Your task to perform on an android device: Add "razer nari" to the cart on amazon.com Image 0: 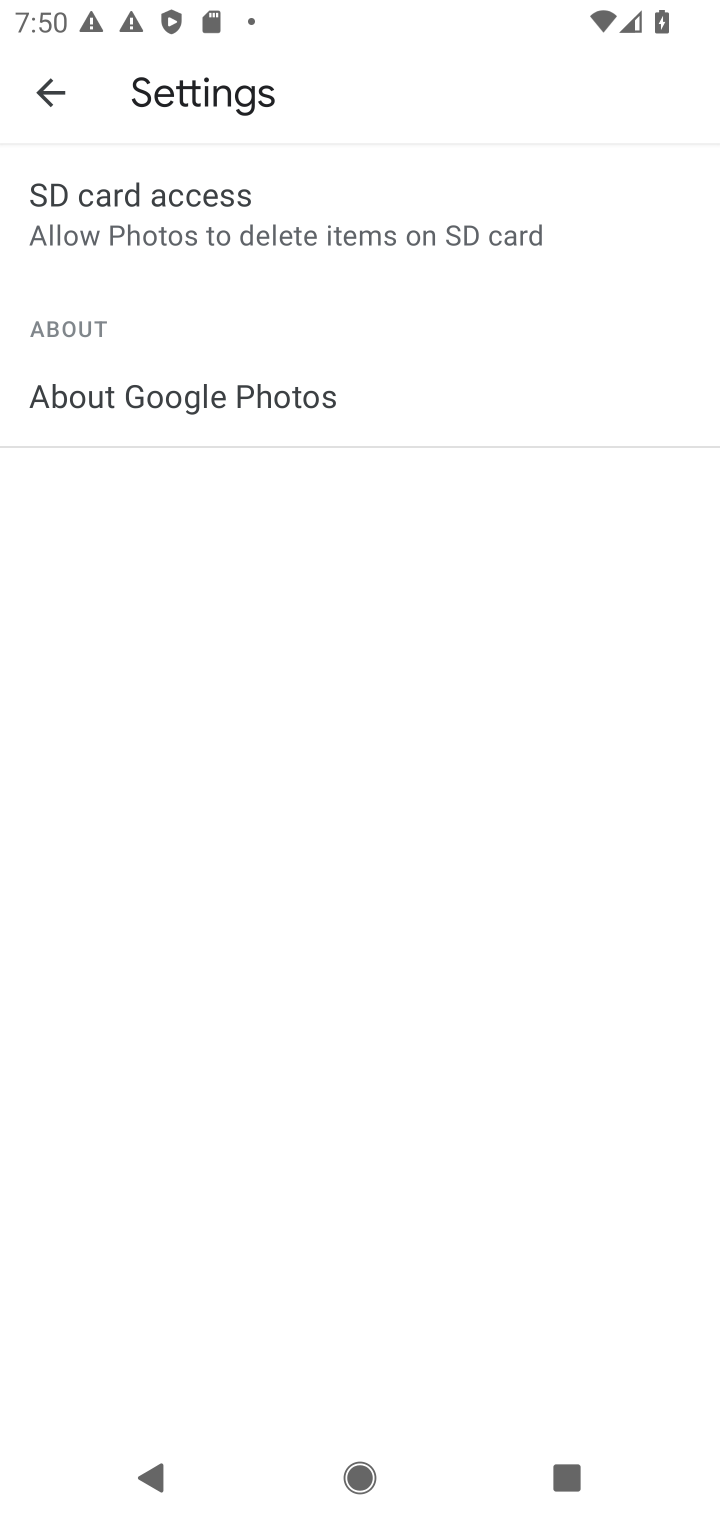
Step 0: press home button
Your task to perform on an android device: Add "razer nari" to the cart on amazon.com Image 1: 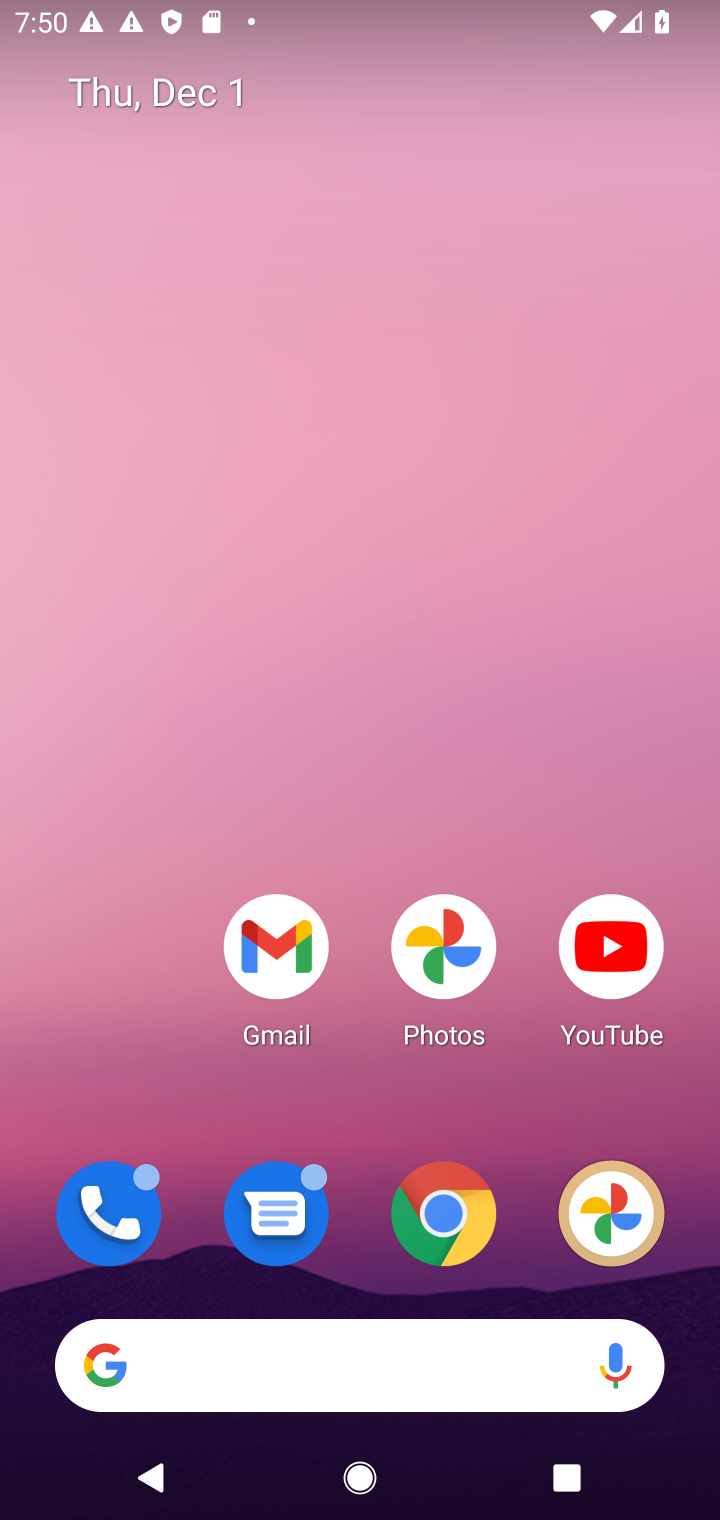
Step 1: click (294, 569)
Your task to perform on an android device: Add "razer nari" to the cart on amazon.com Image 2: 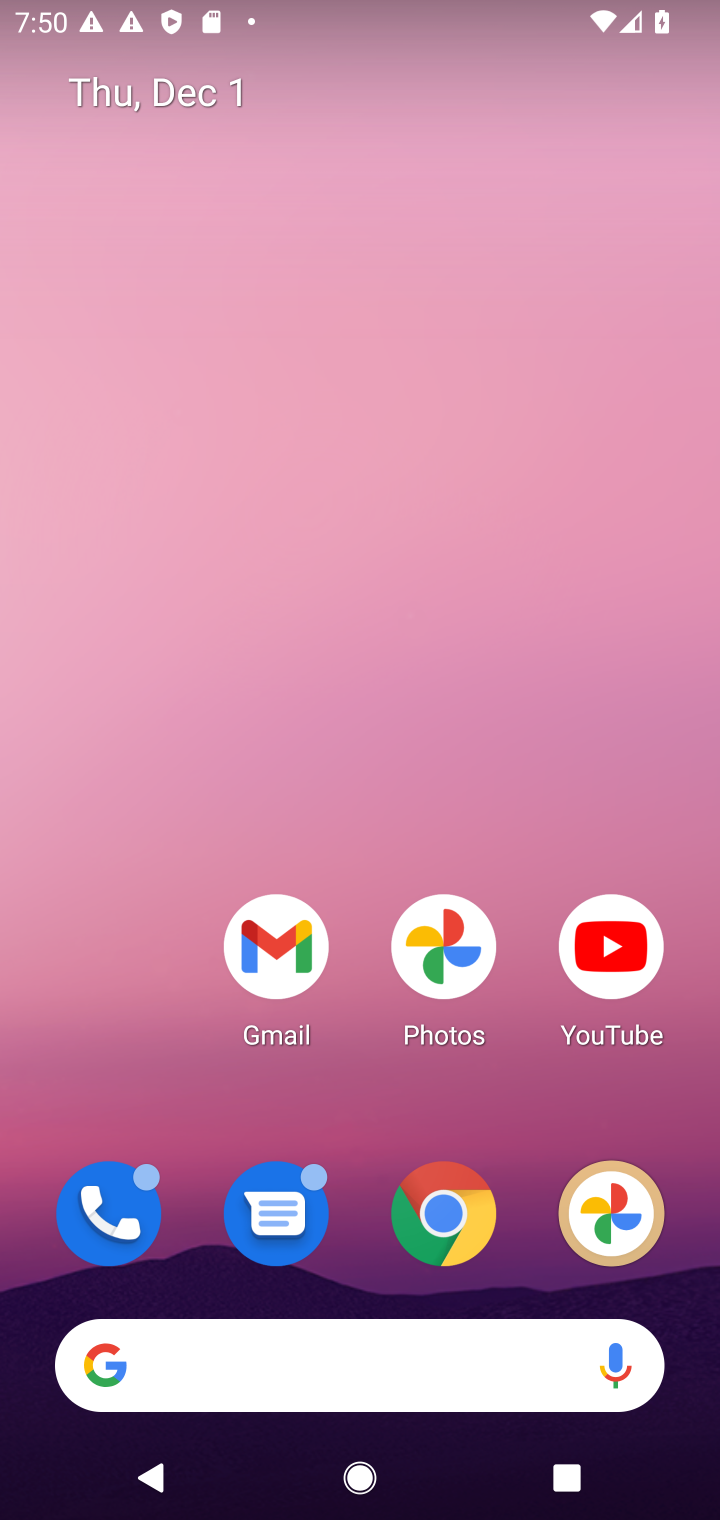
Step 2: drag from (344, 1087) to (432, 468)
Your task to perform on an android device: Add "razer nari" to the cart on amazon.com Image 3: 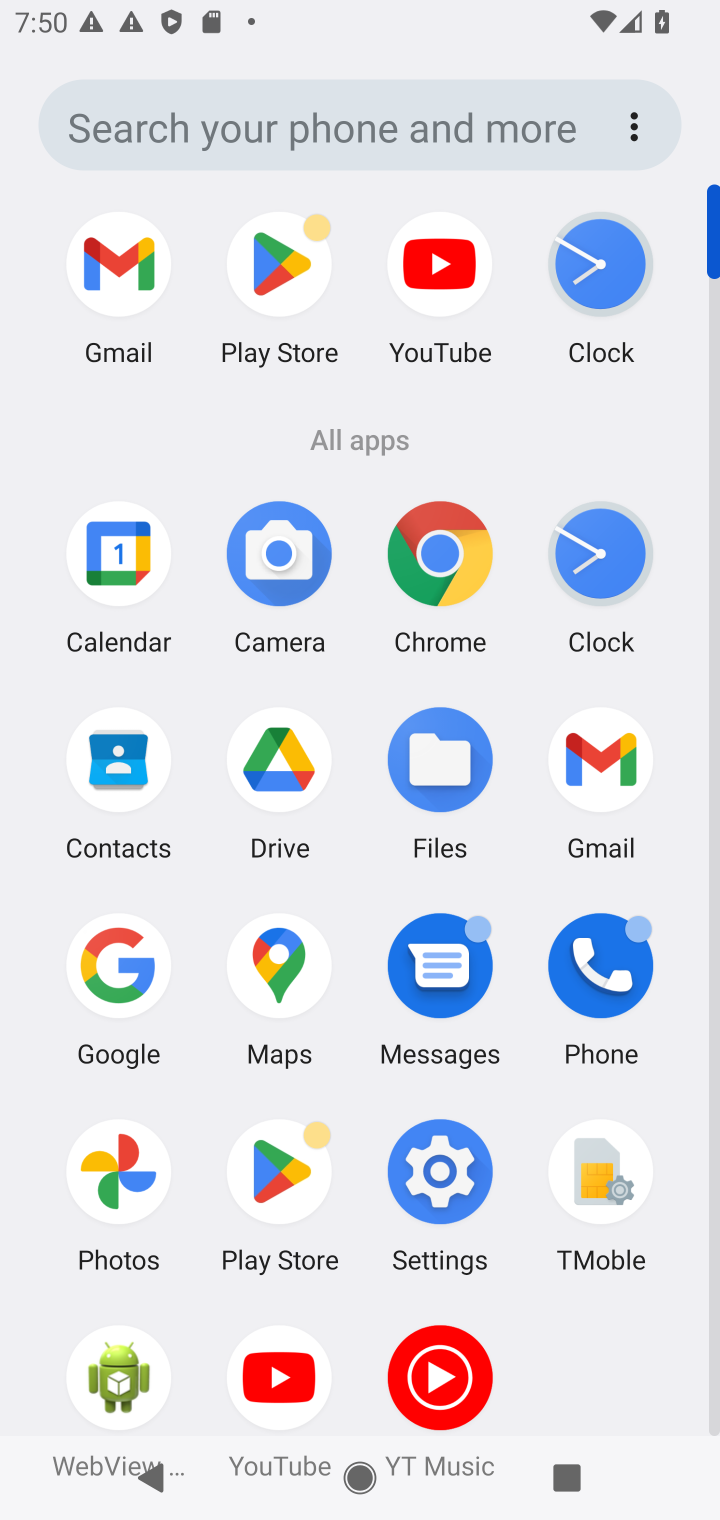
Step 3: click (369, 427)
Your task to perform on an android device: Add "razer nari" to the cart on amazon.com Image 4: 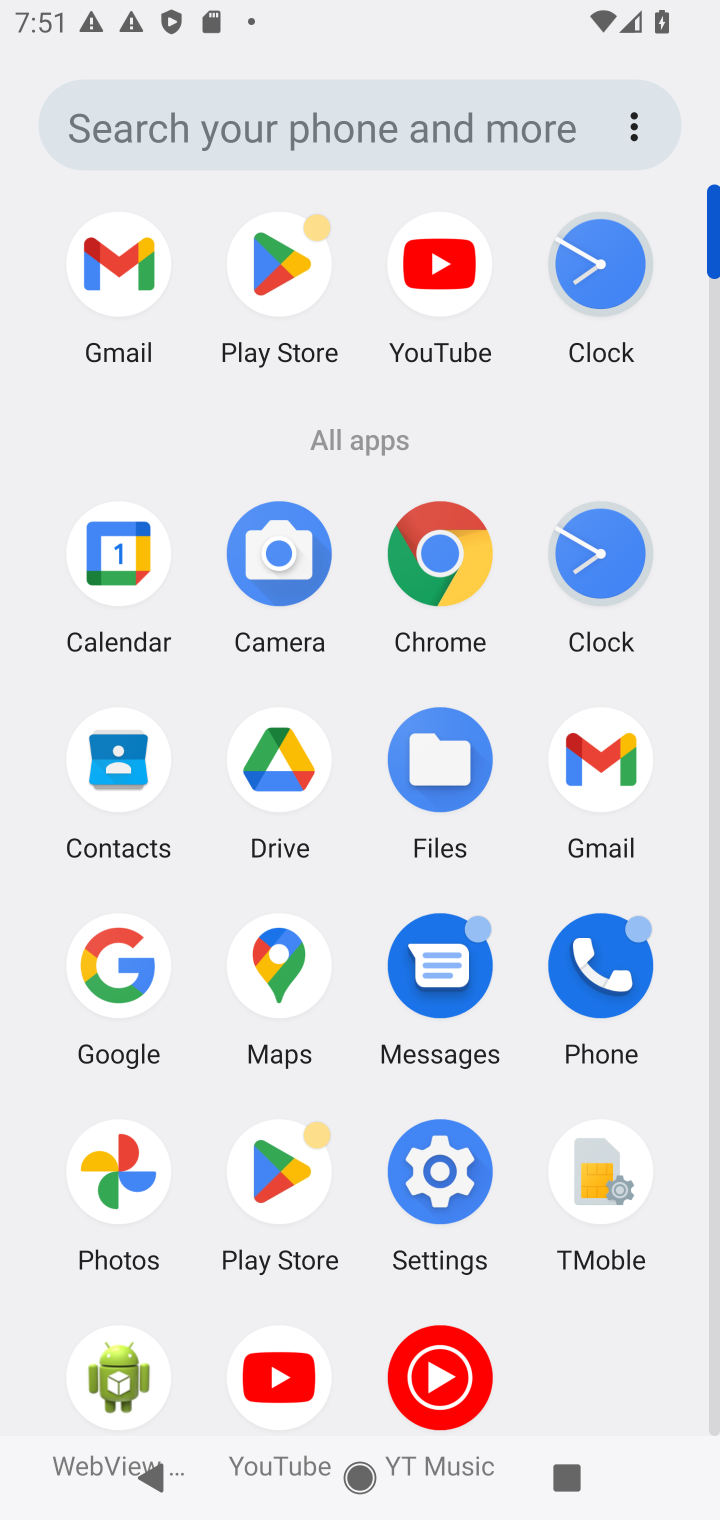
Step 4: click (111, 970)
Your task to perform on an android device: Add "razer nari" to the cart on amazon.com Image 5: 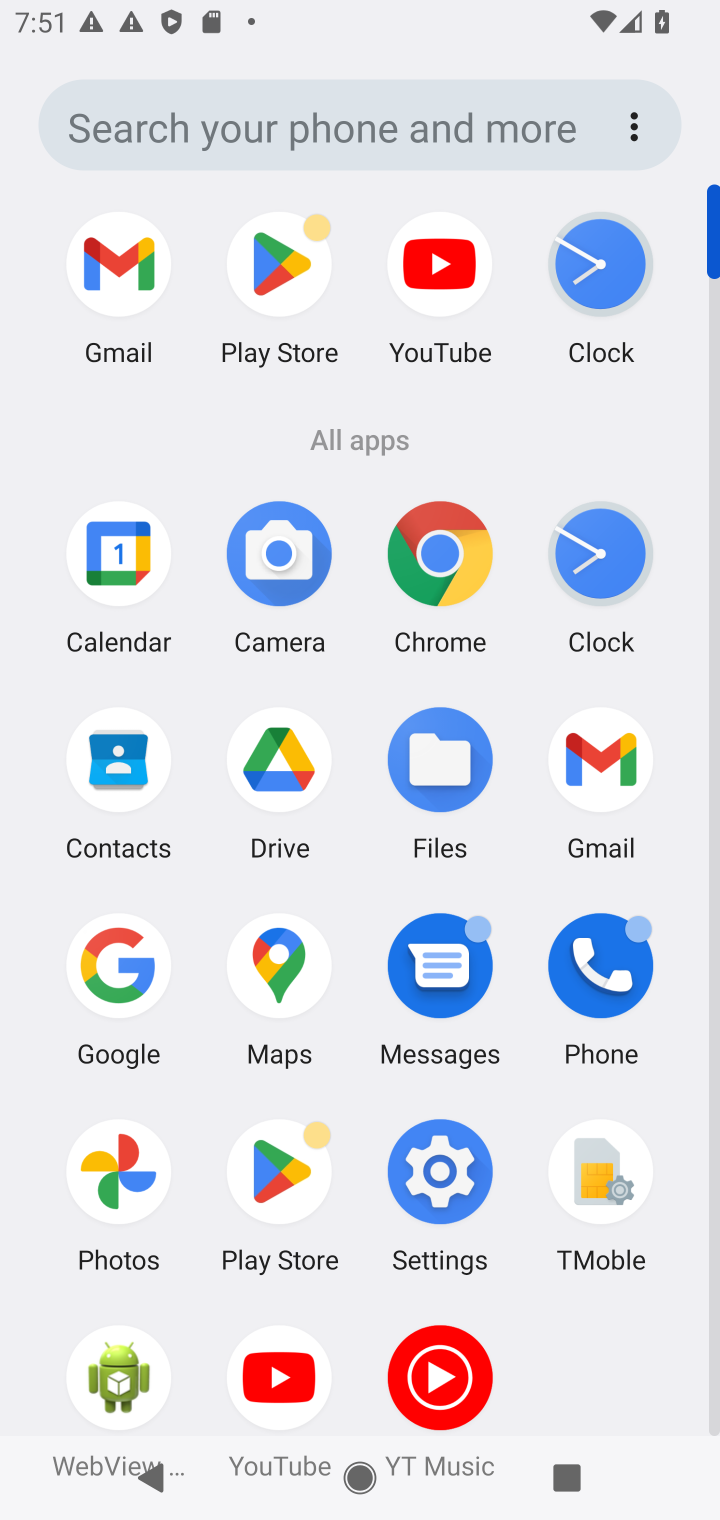
Step 5: click (121, 968)
Your task to perform on an android device: Add "razer nari" to the cart on amazon.com Image 6: 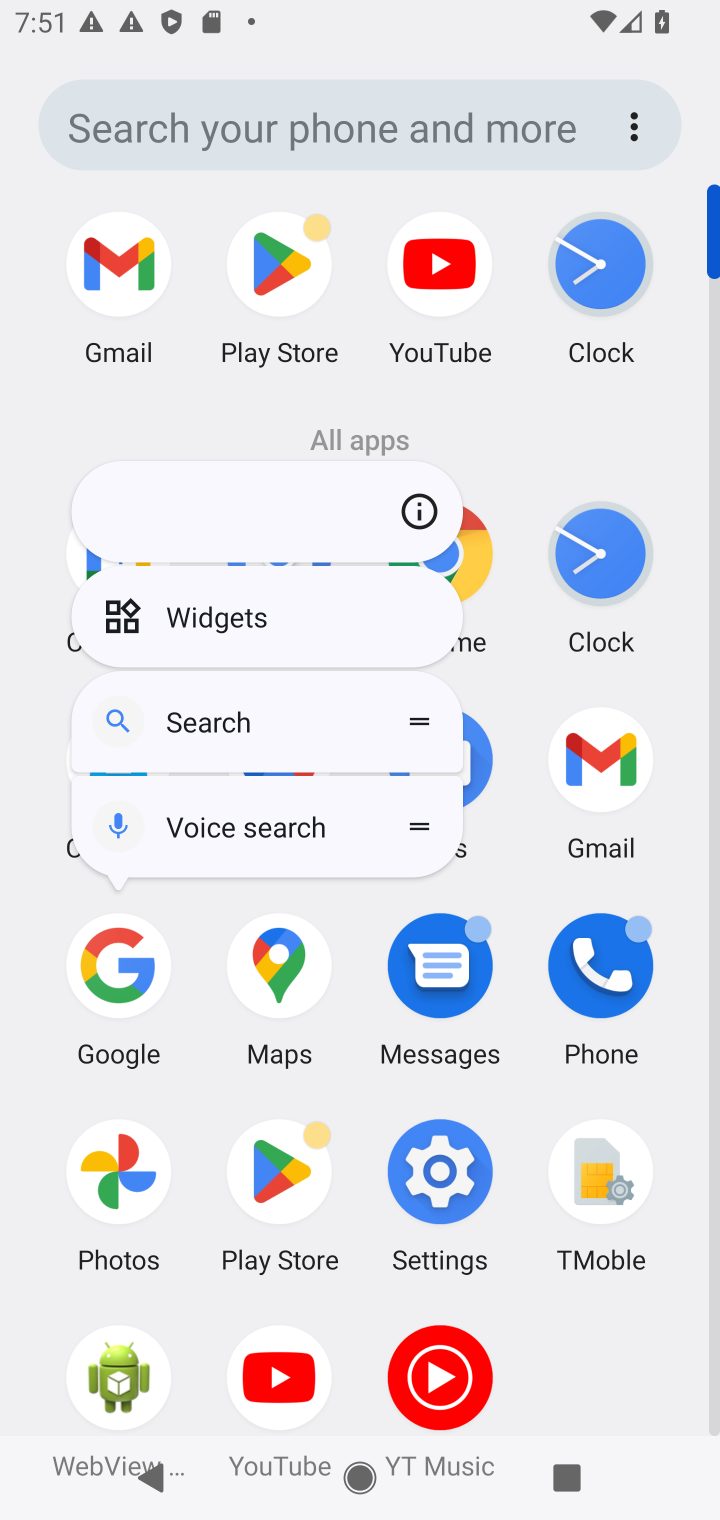
Step 6: click (121, 968)
Your task to perform on an android device: Add "razer nari" to the cart on amazon.com Image 7: 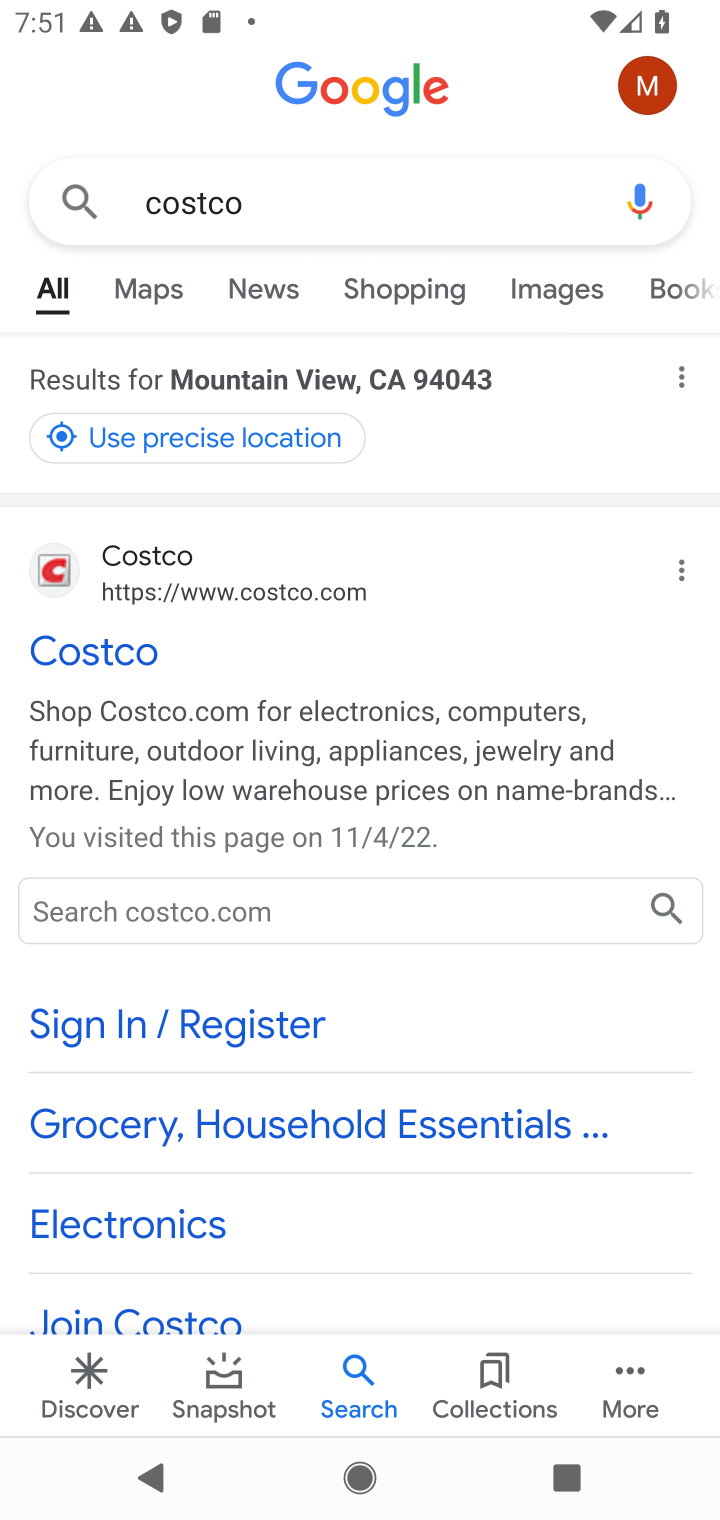
Step 7: click (217, 206)
Your task to perform on an android device: Add "razer nari" to the cart on amazon.com Image 8: 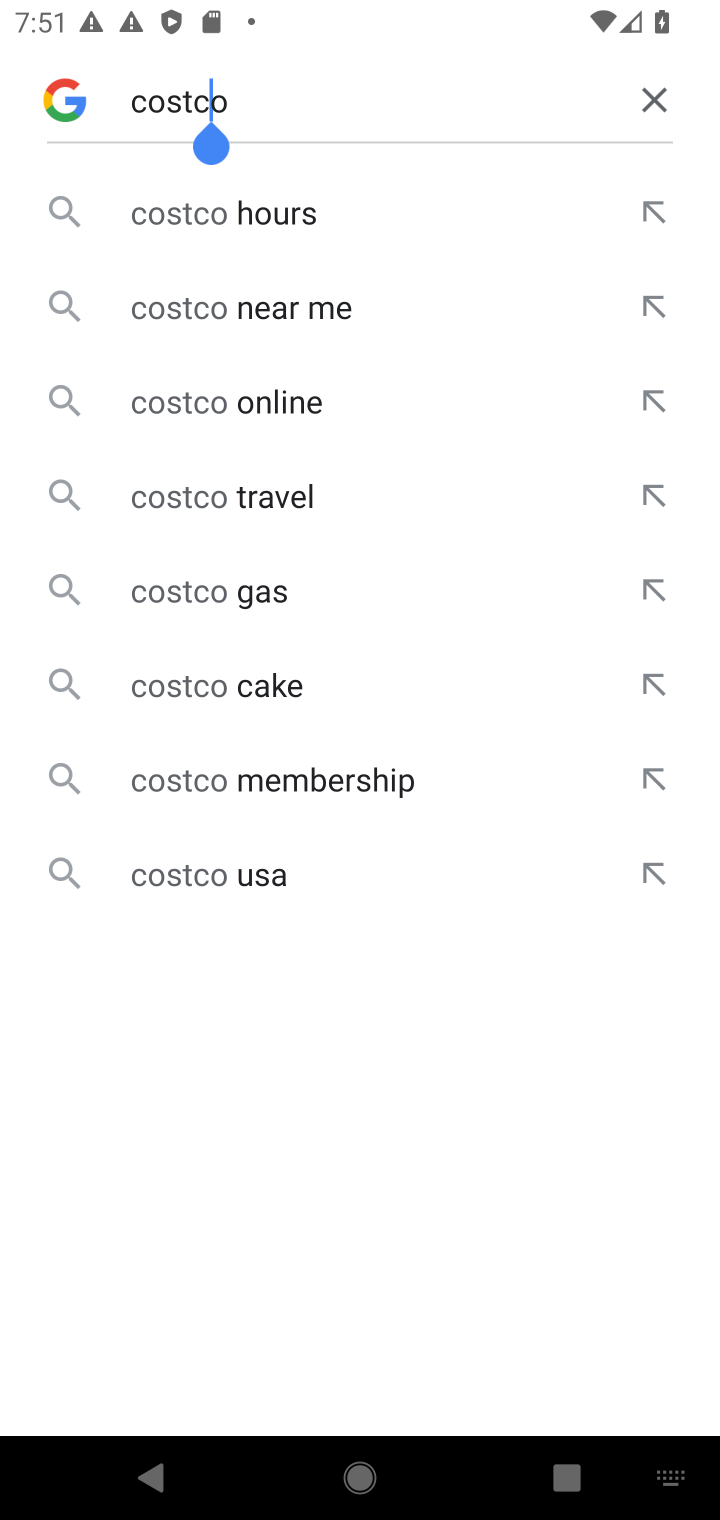
Step 8: click (655, 98)
Your task to perform on an android device: Add "razer nari" to the cart on amazon.com Image 9: 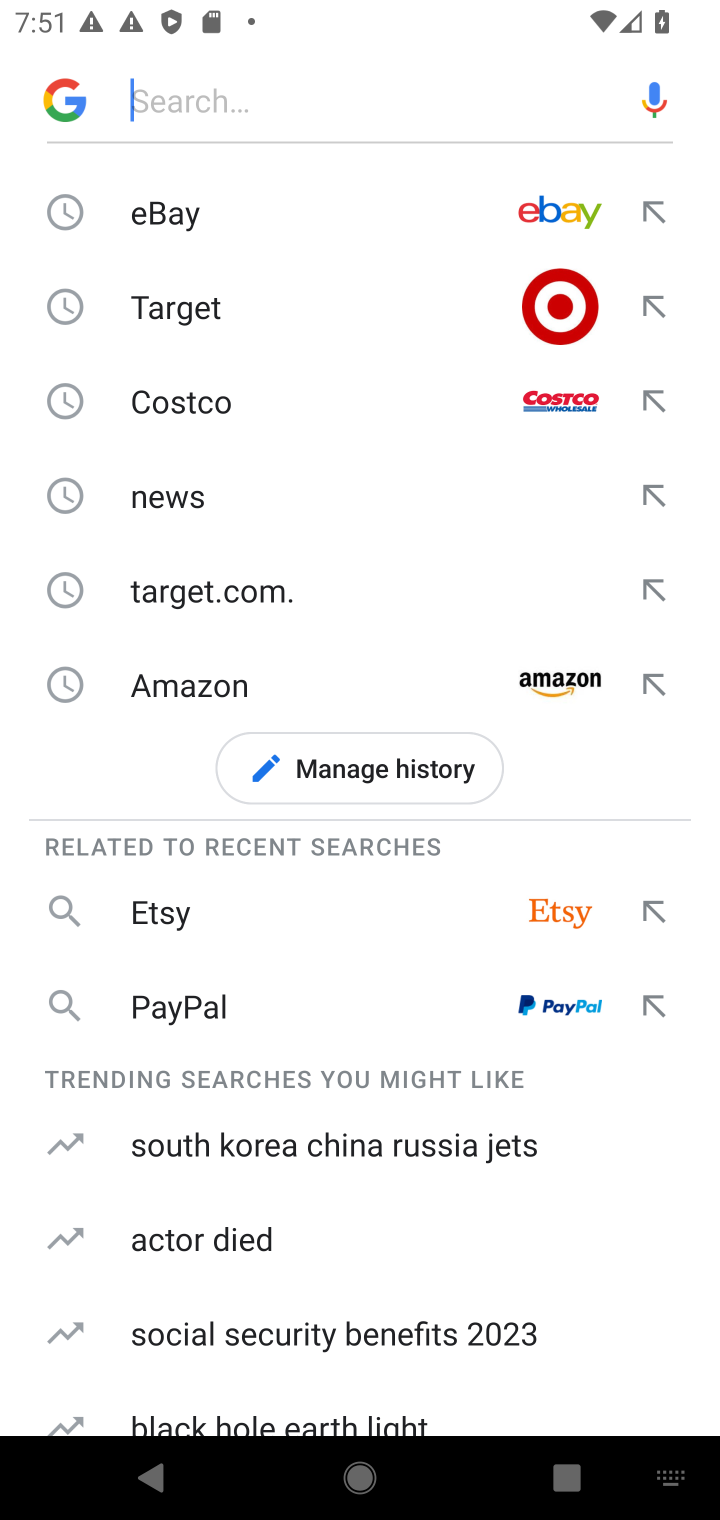
Step 9: click (171, 675)
Your task to perform on an android device: Add "razer nari" to the cart on amazon.com Image 10: 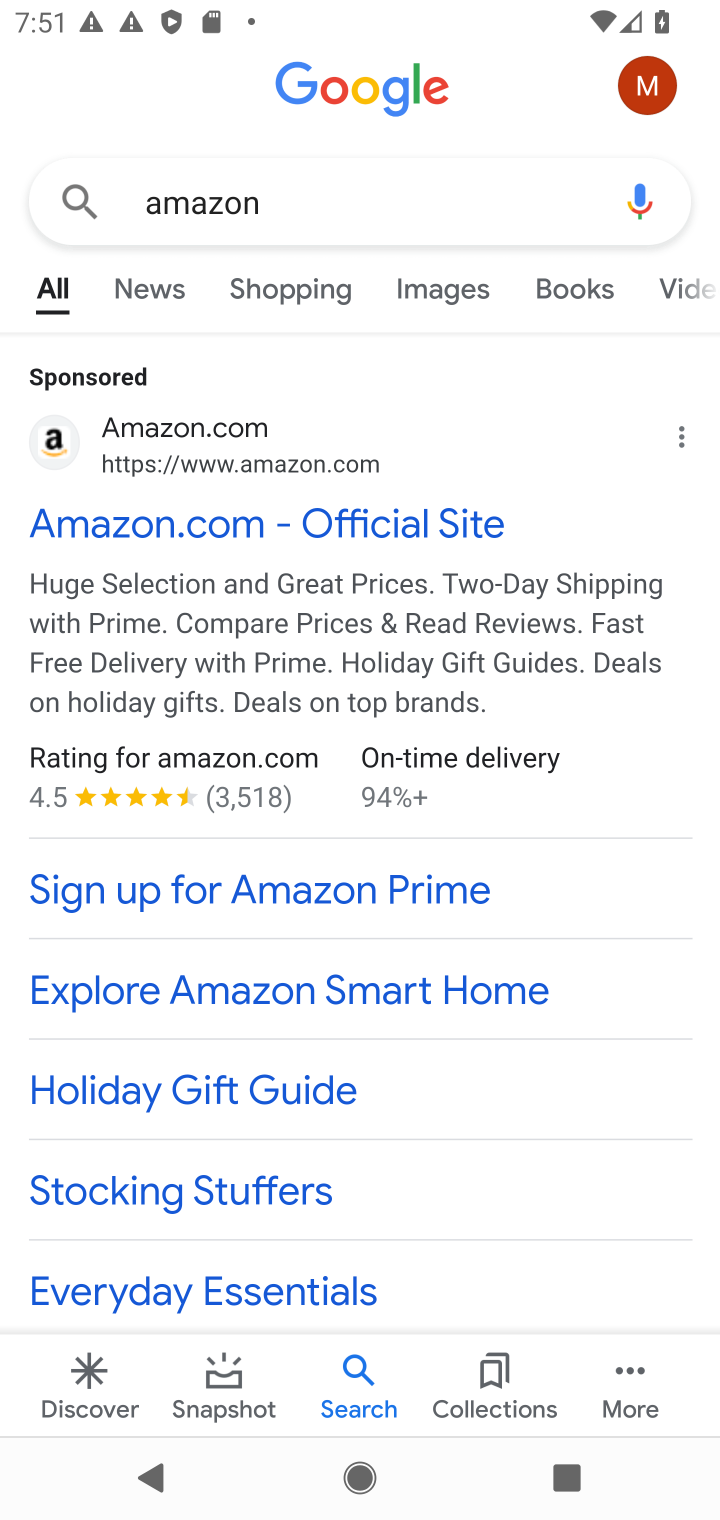
Step 10: click (197, 521)
Your task to perform on an android device: Add "razer nari" to the cart on amazon.com Image 11: 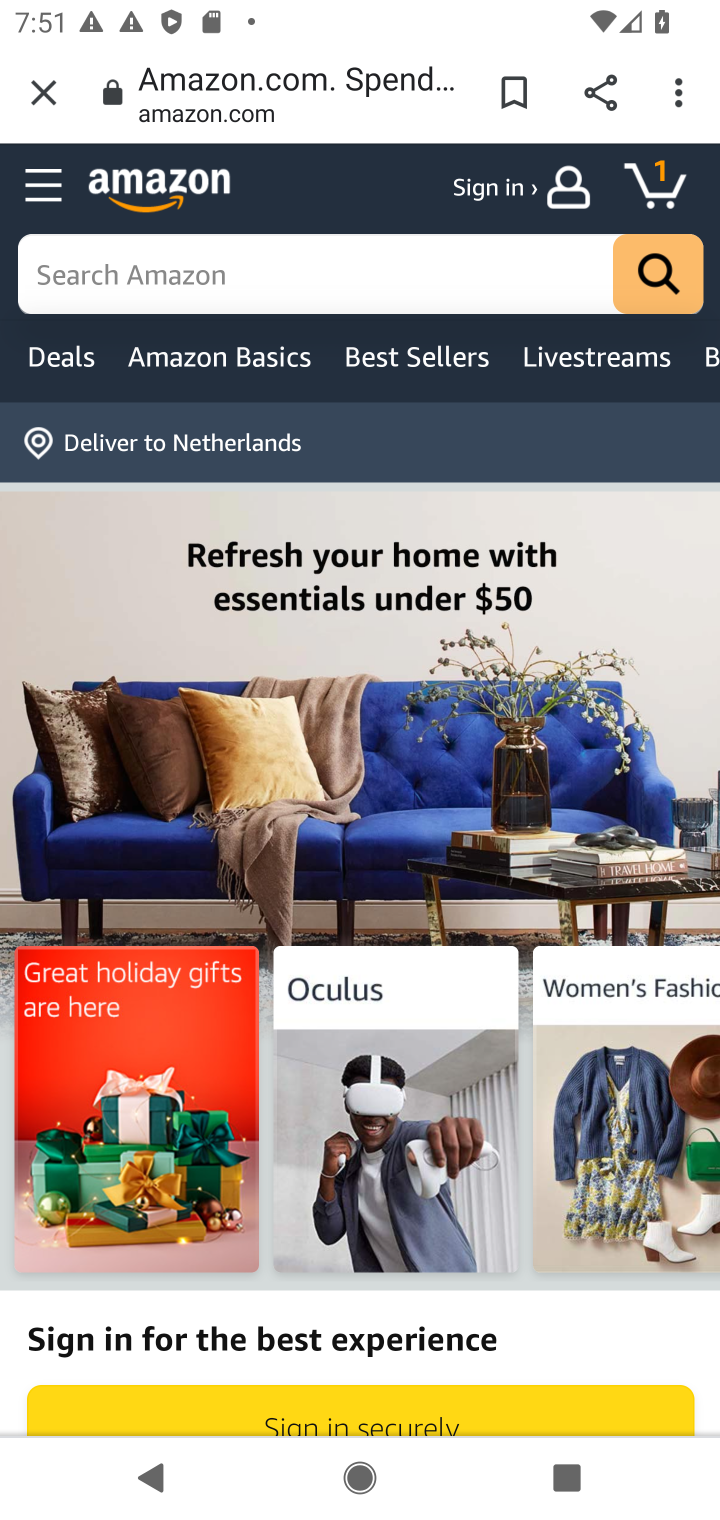
Step 11: type "razer nari"
Your task to perform on an android device: Add "razer nari" to the cart on amazon.com Image 12: 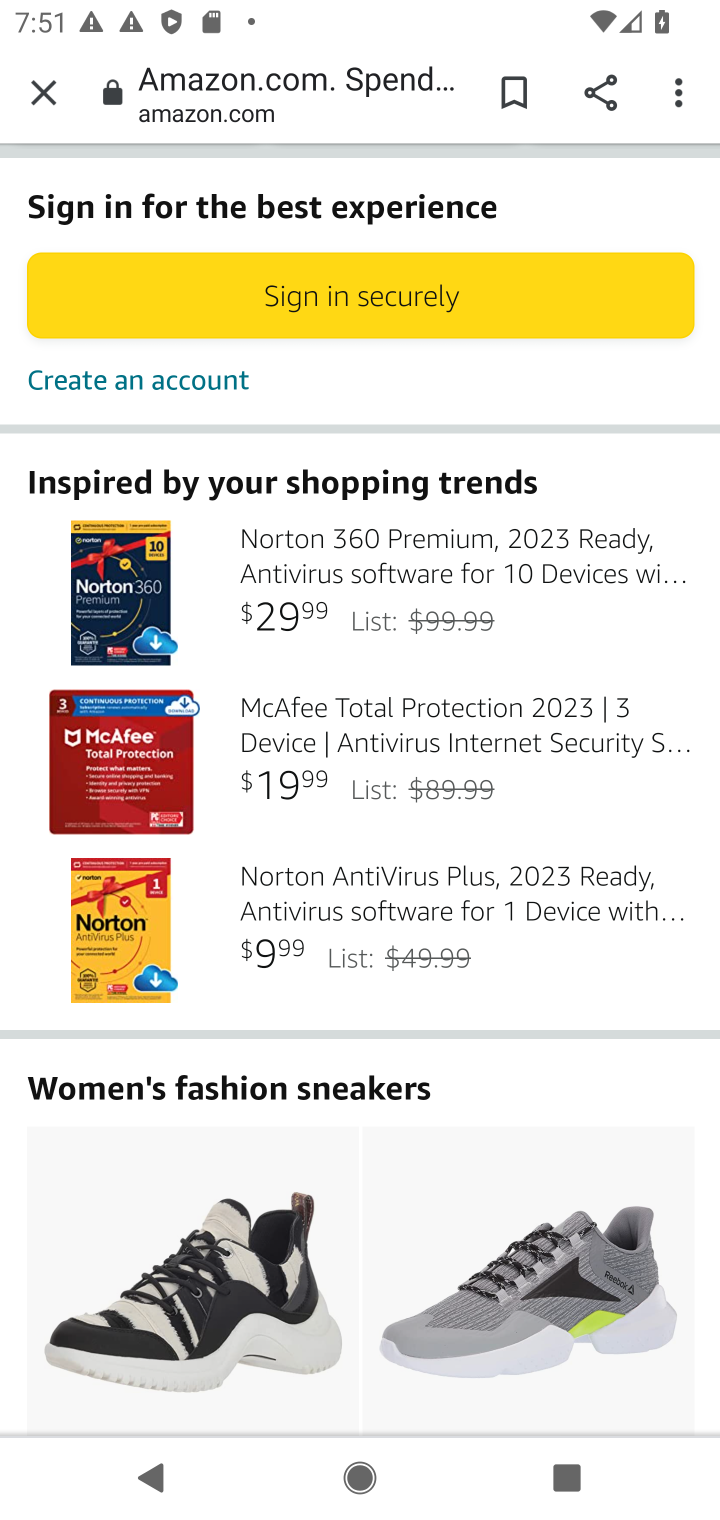
Step 12: drag from (223, 272) to (300, 763)
Your task to perform on an android device: Add "razer nari" to the cart on amazon.com Image 13: 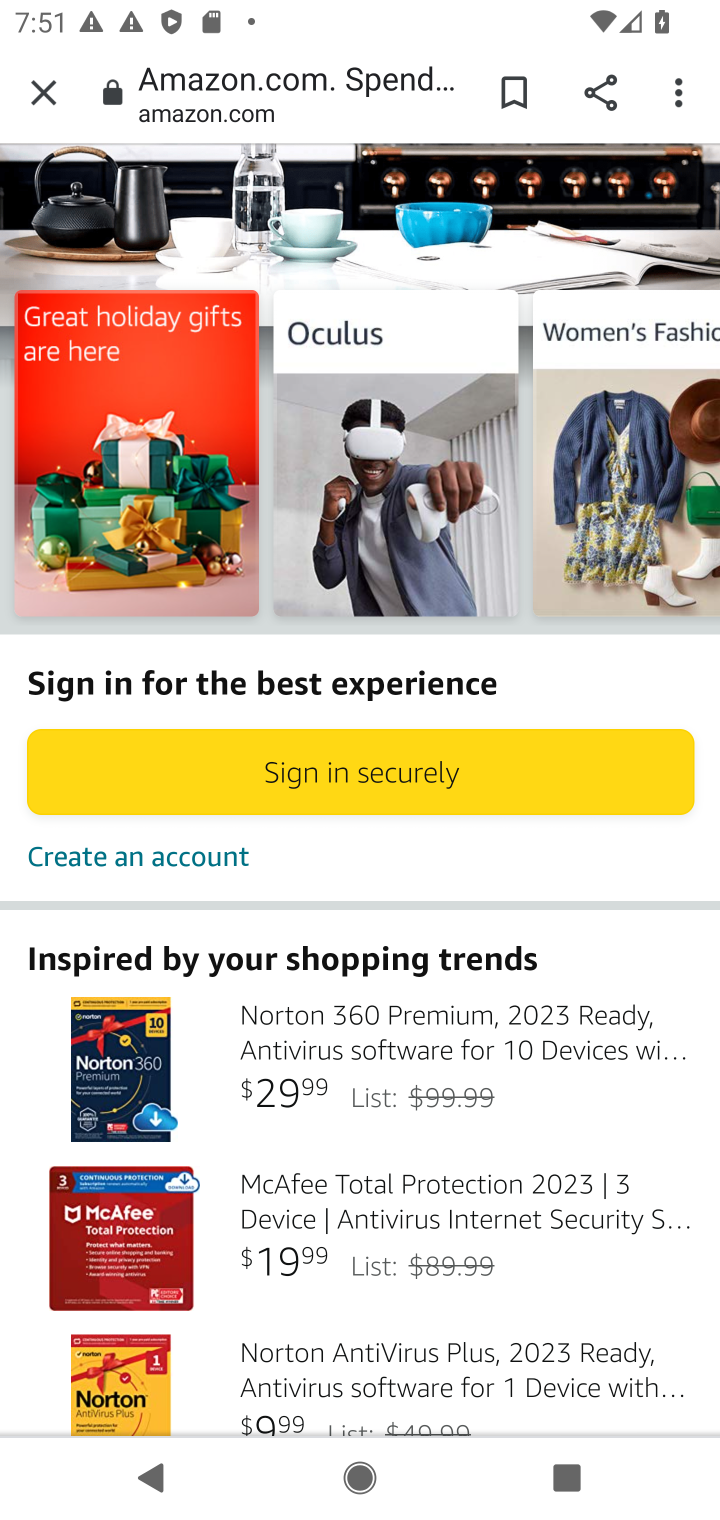
Step 13: drag from (407, 344) to (412, 900)
Your task to perform on an android device: Add "razer nari" to the cart on amazon.com Image 14: 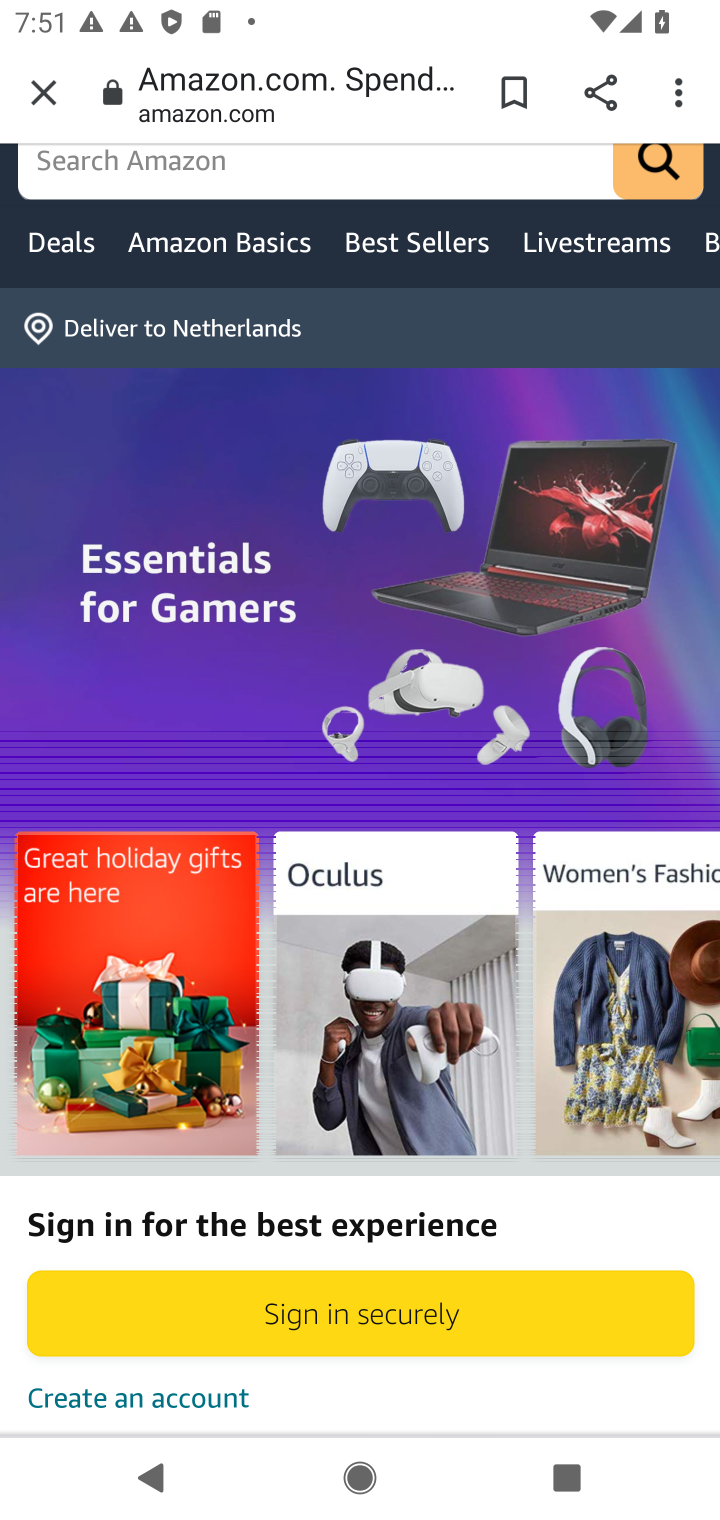
Step 14: click (286, 167)
Your task to perform on an android device: Add "razer nari" to the cart on amazon.com Image 15: 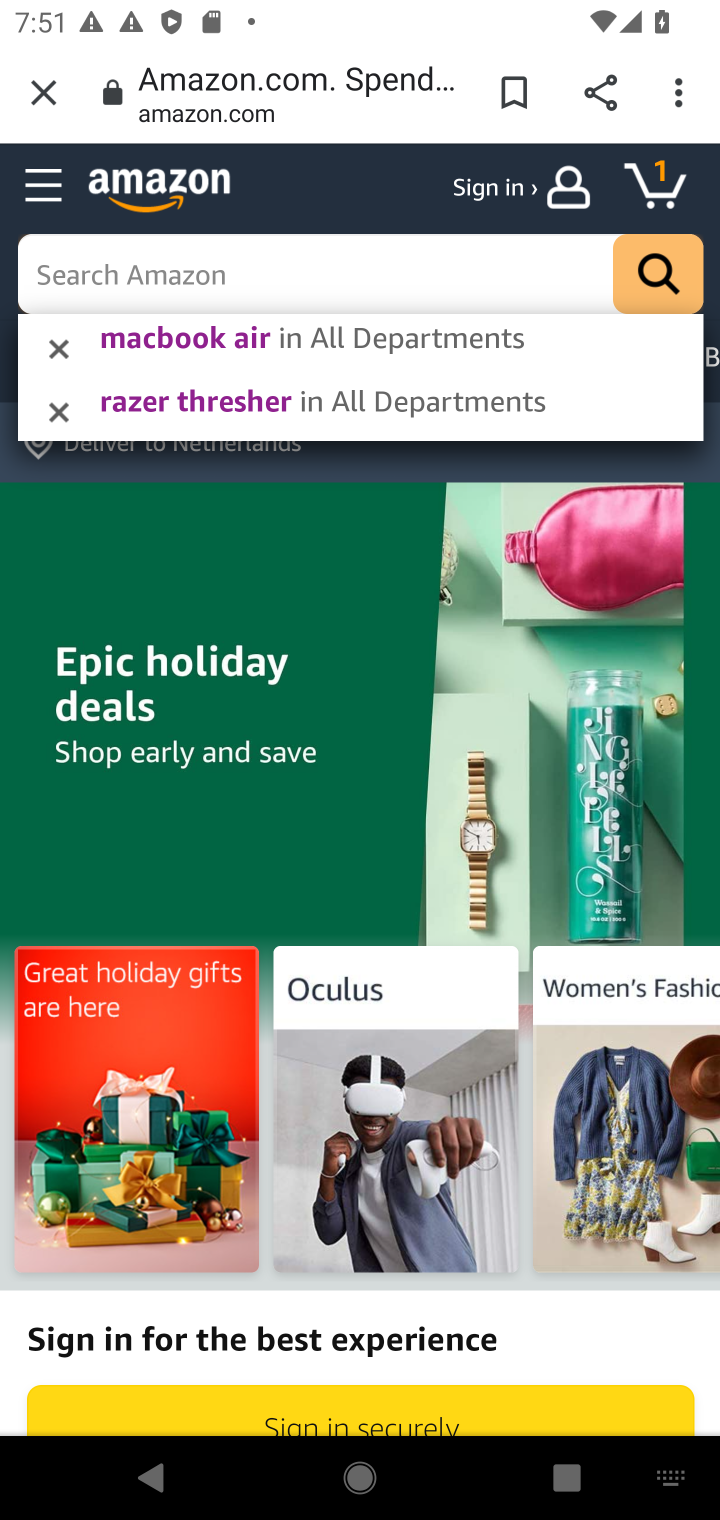
Step 15: type "razer nari"
Your task to perform on an android device: Add "razer nari" to the cart on amazon.com Image 16: 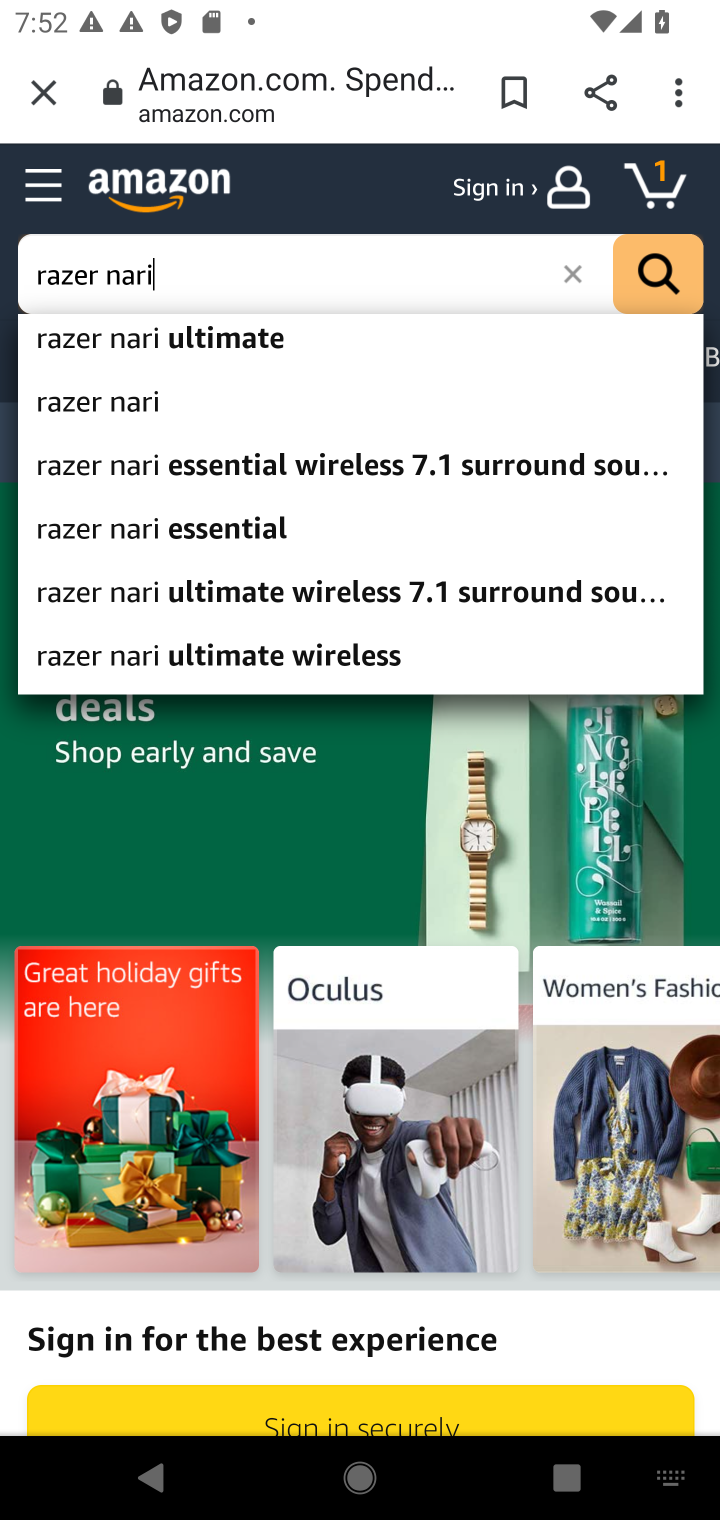
Step 16: click (115, 413)
Your task to perform on an android device: Add "razer nari" to the cart on amazon.com Image 17: 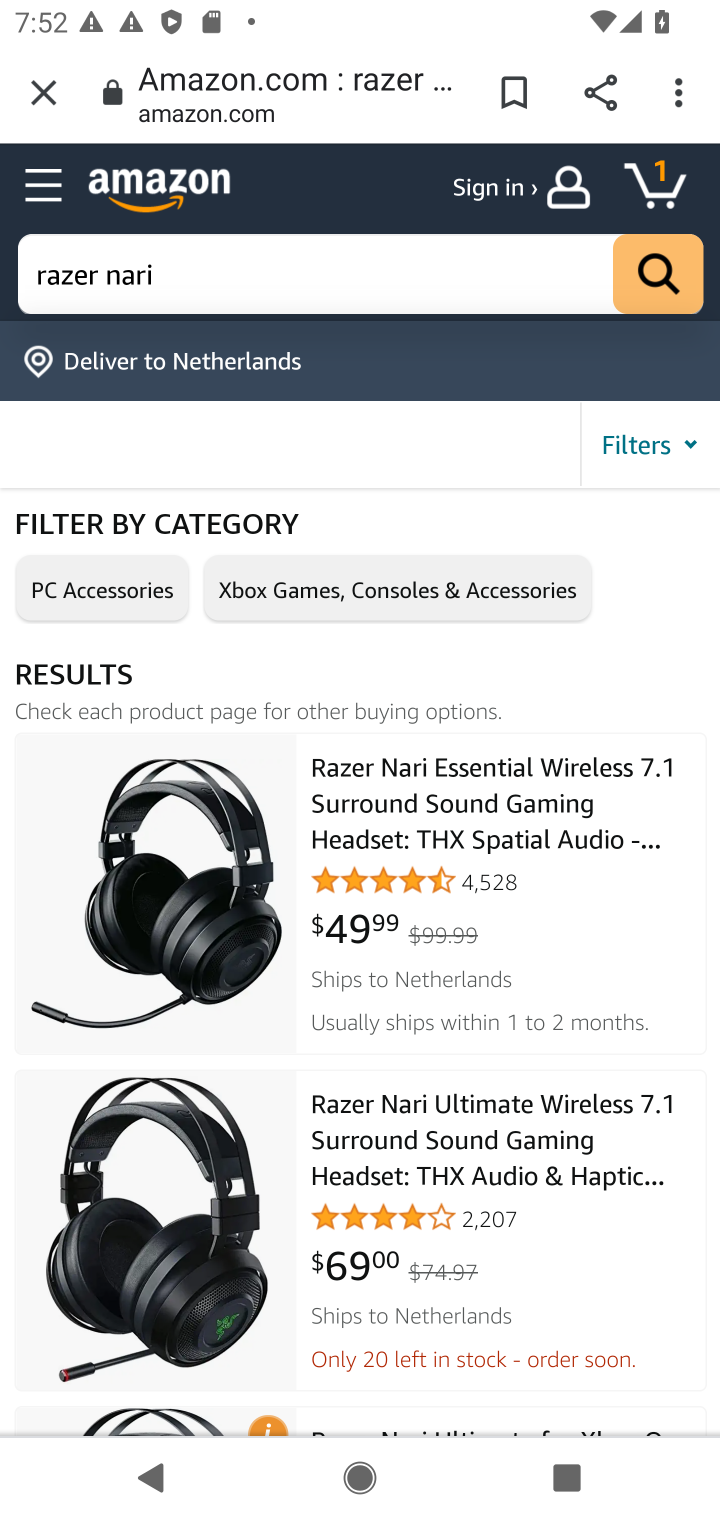
Step 17: click (467, 841)
Your task to perform on an android device: Add "razer nari" to the cart on amazon.com Image 18: 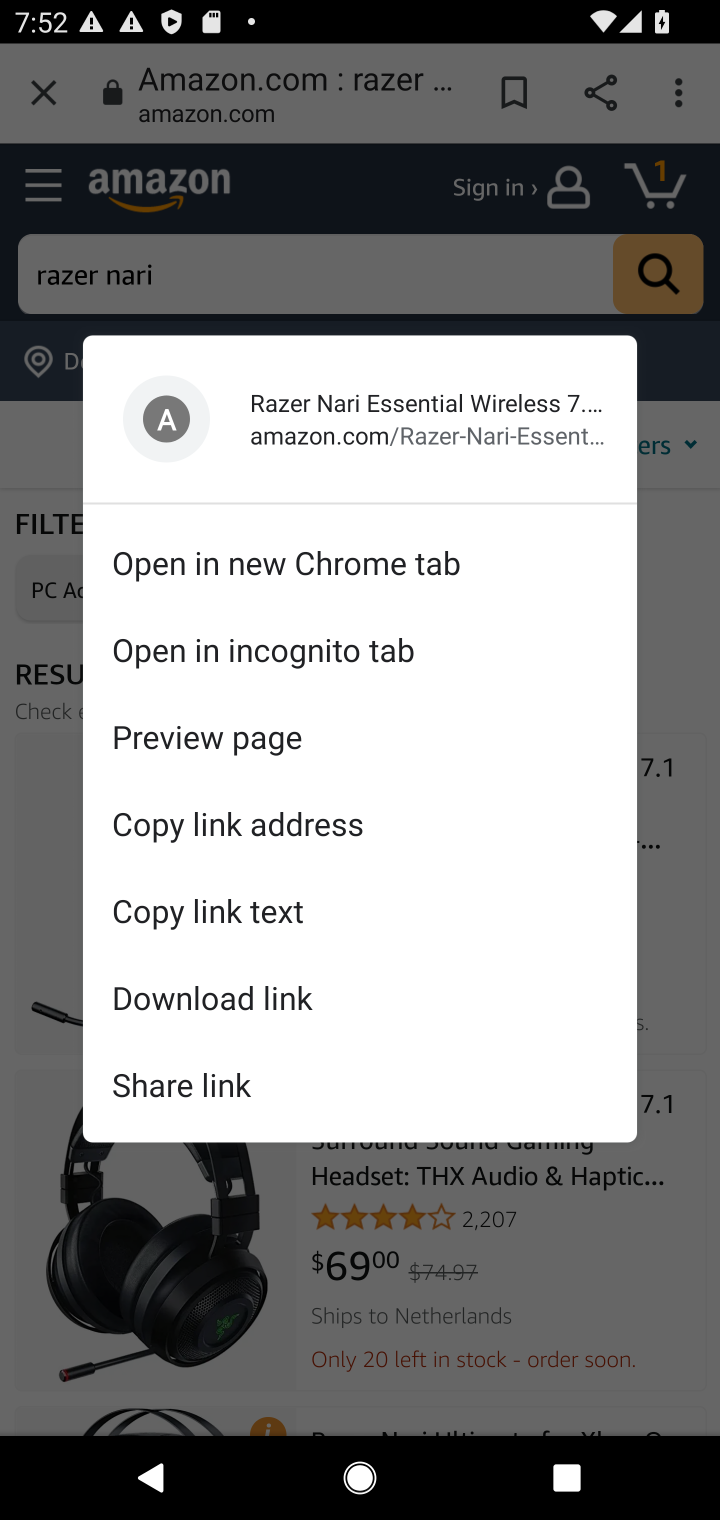
Step 18: click (11, 931)
Your task to perform on an android device: Add "razer nari" to the cart on amazon.com Image 19: 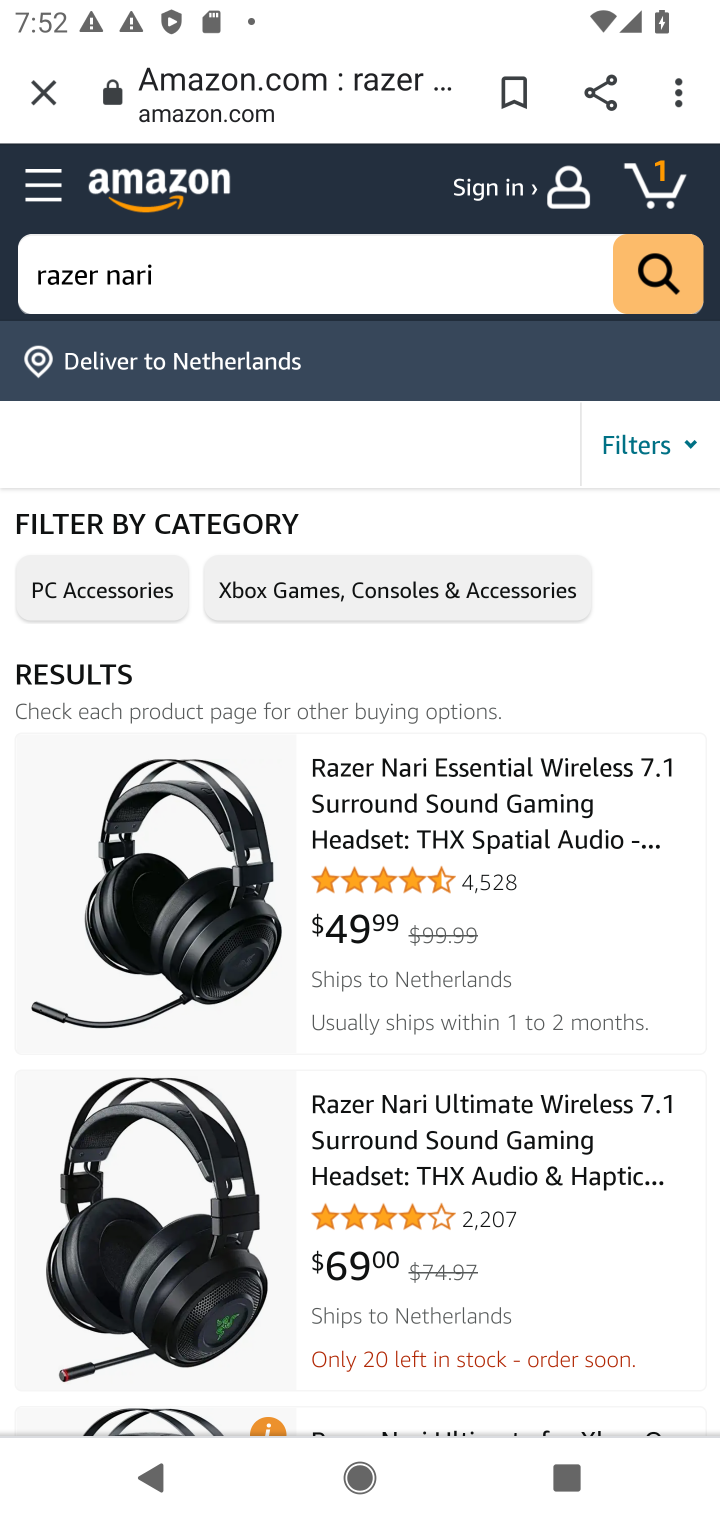
Step 19: click (329, 864)
Your task to perform on an android device: Add "razer nari" to the cart on amazon.com Image 20: 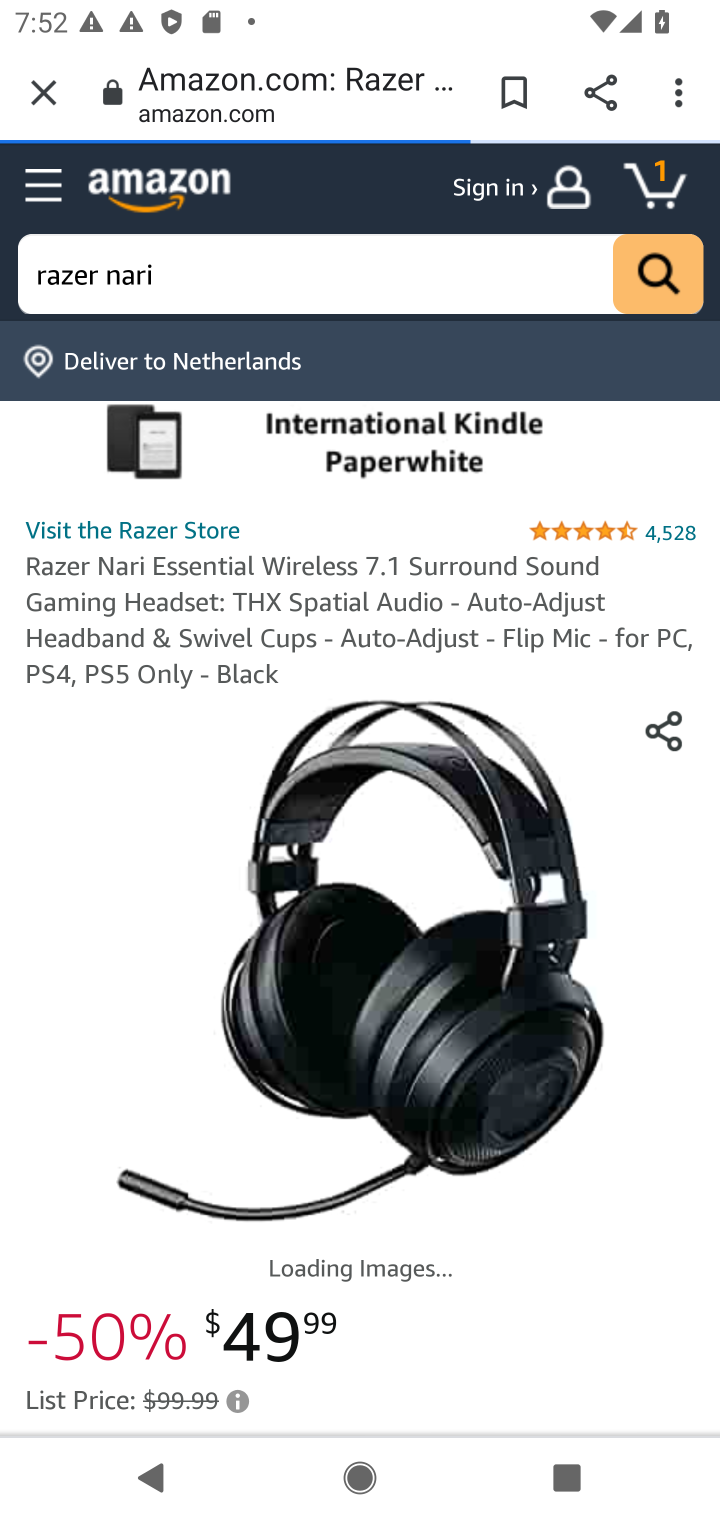
Step 20: drag from (522, 1288) to (603, 678)
Your task to perform on an android device: Add "razer nari" to the cart on amazon.com Image 21: 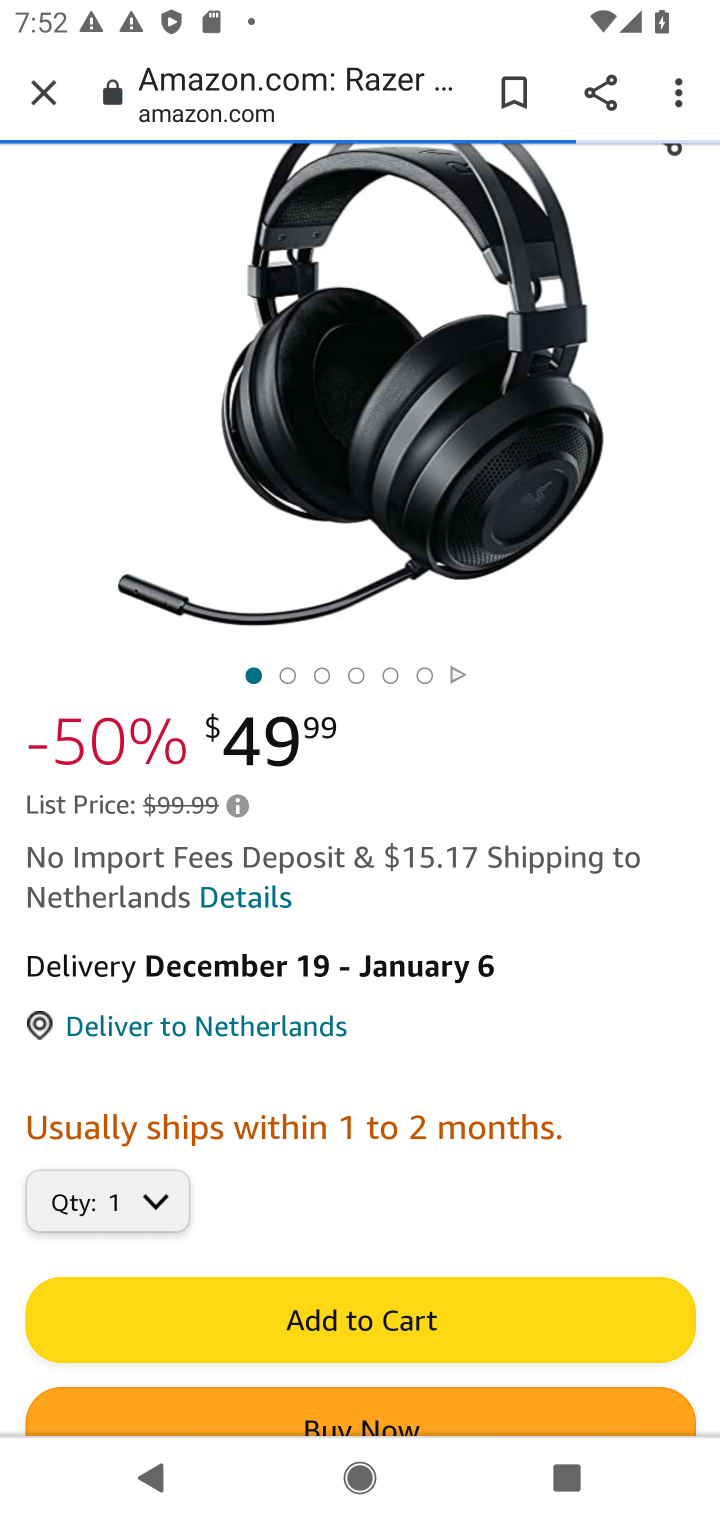
Step 21: click (390, 1311)
Your task to perform on an android device: Add "razer nari" to the cart on amazon.com Image 22: 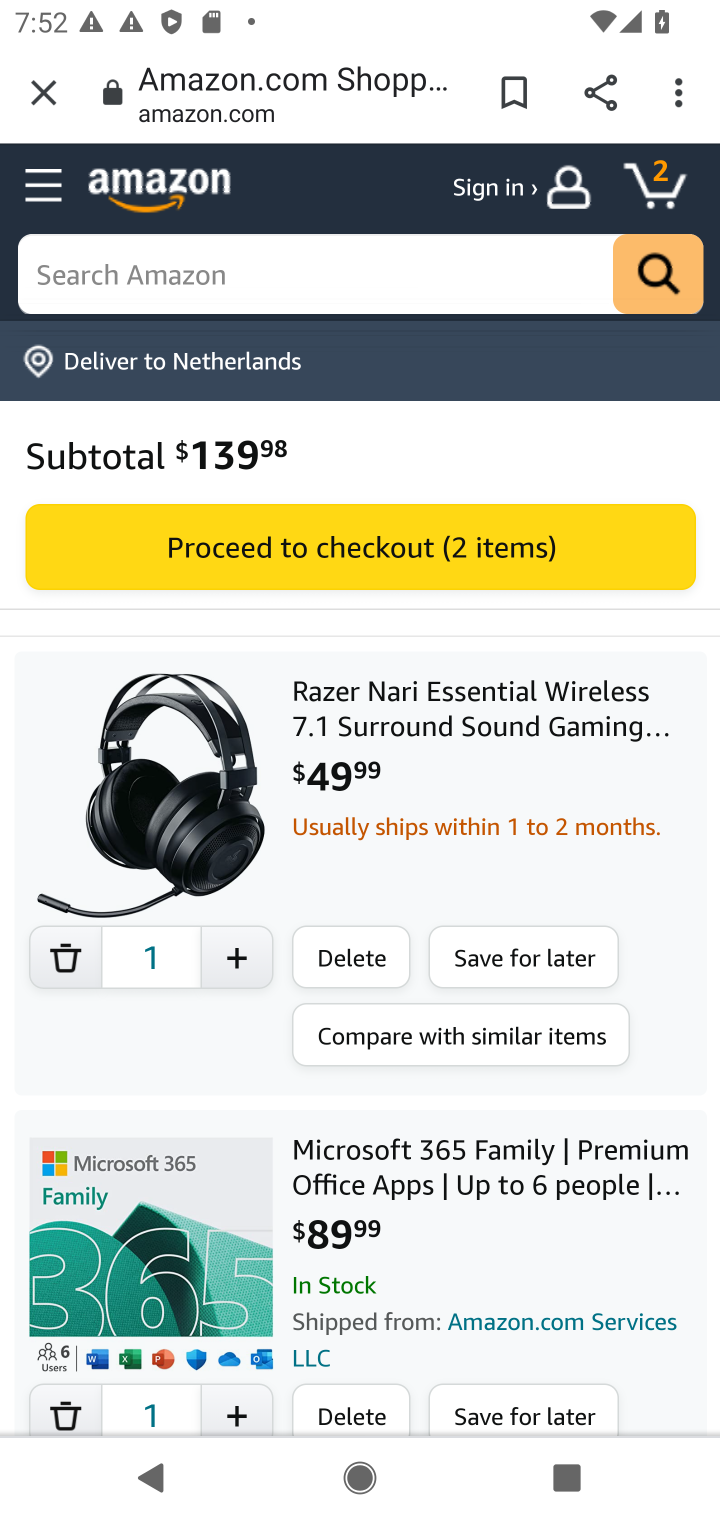
Step 22: task complete